Your task to perform on an android device: Open Google Chrome and open the bookmarks view Image 0: 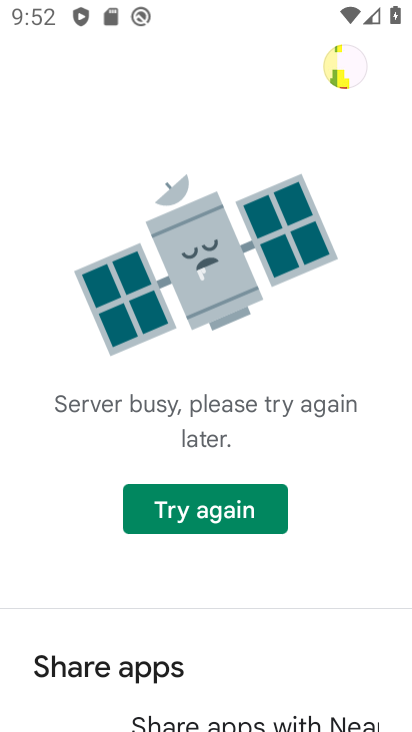
Step 0: press home button
Your task to perform on an android device: Open Google Chrome and open the bookmarks view Image 1: 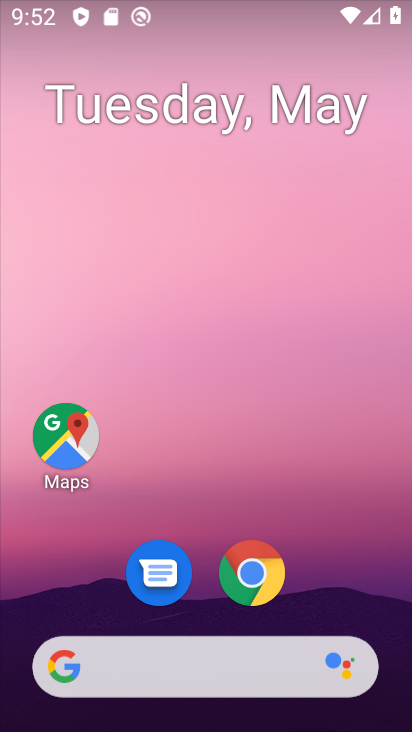
Step 1: click (257, 573)
Your task to perform on an android device: Open Google Chrome and open the bookmarks view Image 2: 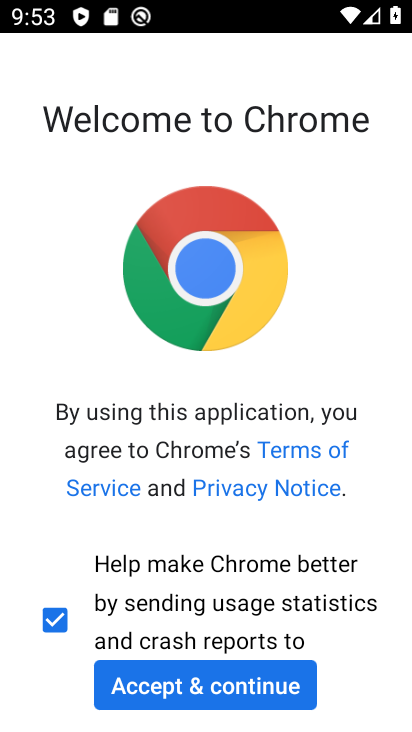
Step 2: click (279, 679)
Your task to perform on an android device: Open Google Chrome and open the bookmarks view Image 3: 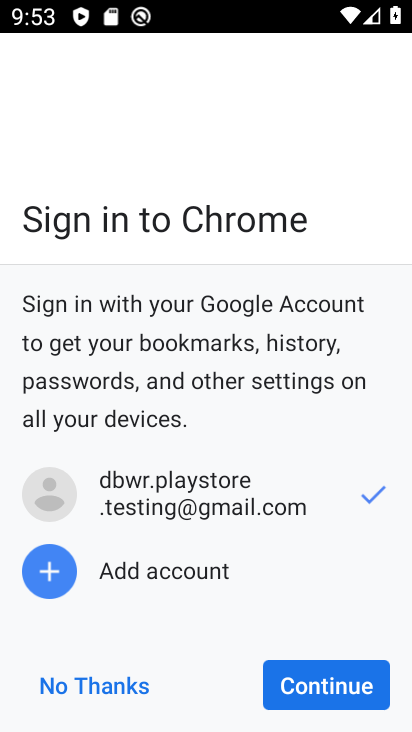
Step 3: click (286, 675)
Your task to perform on an android device: Open Google Chrome and open the bookmarks view Image 4: 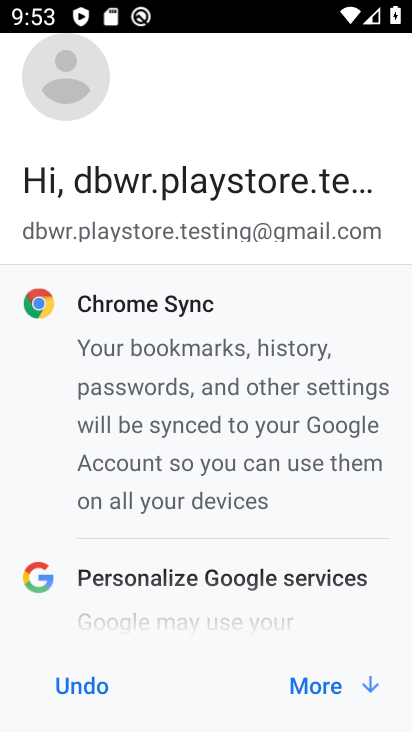
Step 4: click (345, 680)
Your task to perform on an android device: Open Google Chrome and open the bookmarks view Image 5: 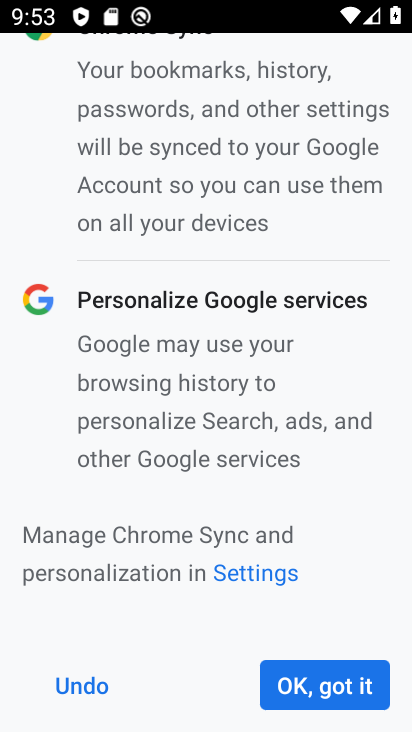
Step 5: click (345, 680)
Your task to perform on an android device: Open Google Chrome and open the bookmarks view Image 6: 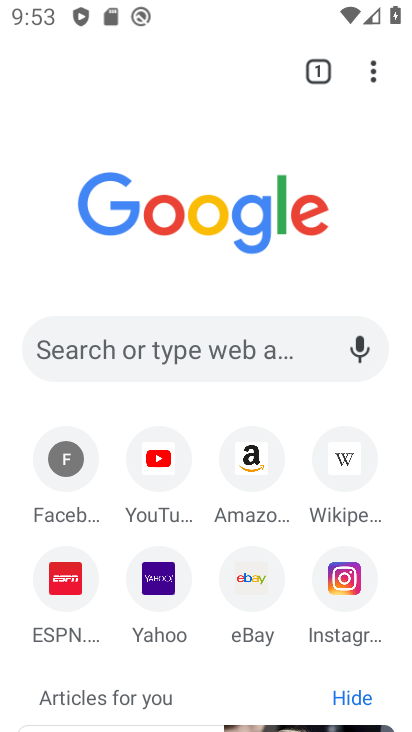
Step 6: task complete